Your task to perform on an android device: Go to CNN.com Image 0: 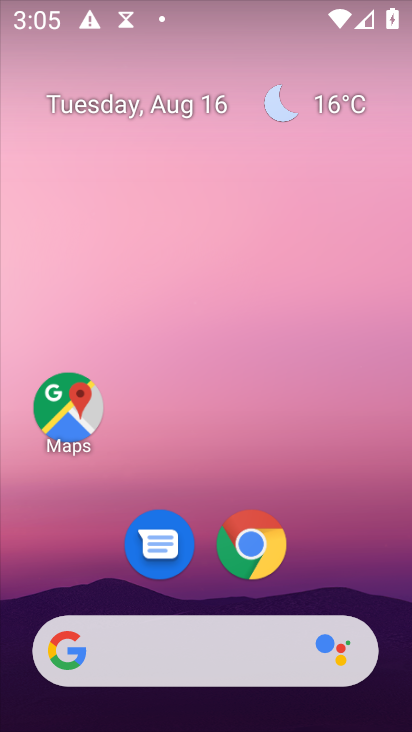
Step 0: click (252, 549)
Your task to perform on an android device: Go to CNN.com Image 1: 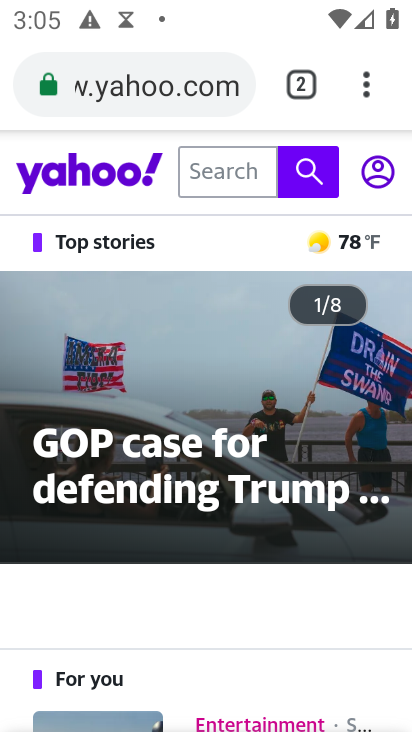
Step 1: click (236, 87)
Your task to perform on an android device: Go to CNN.com Image 2: 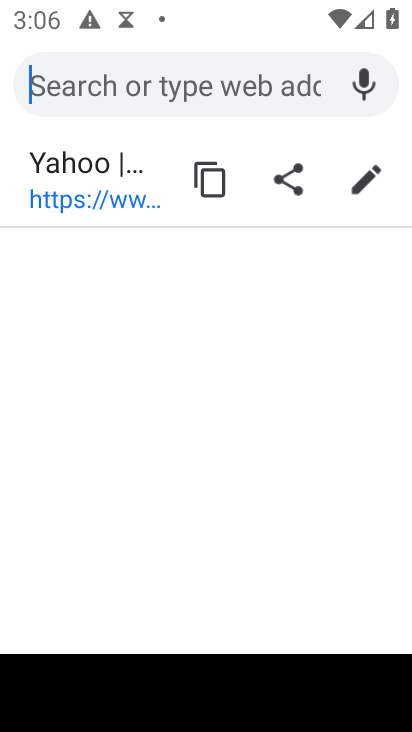
Step 2: type "CNN.com"
Your task to perform on an android device: Go to CNN.com Image 3: 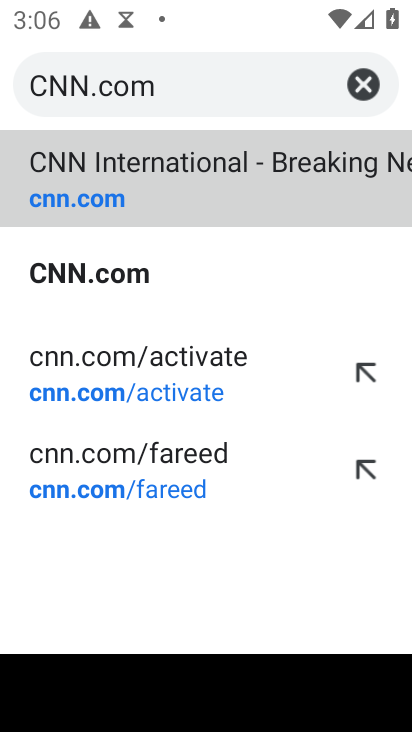
Step 3: click (131, 284)
Your task to perform on an android device: Go to CNN.com Image 4: 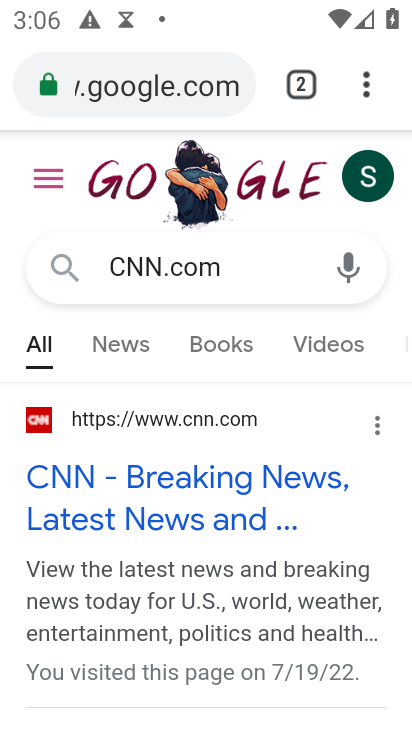
Step 4: click (167, 495)
Your task to perform on an android device: Go to CNN.com Image 5: 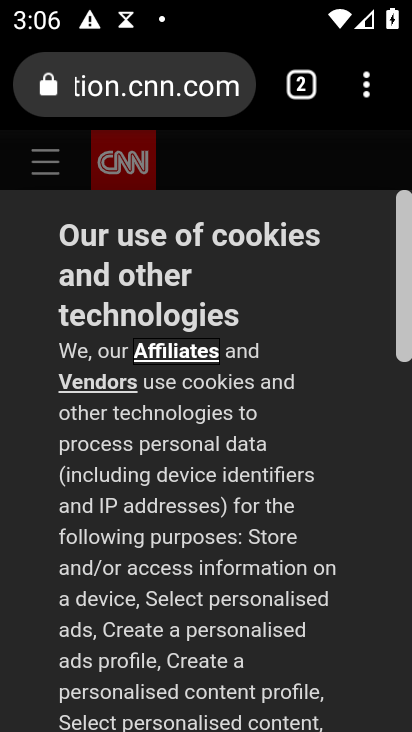
Step 5: task complete